Your task to perform on an android device: star an email in the gmail app Image 0: 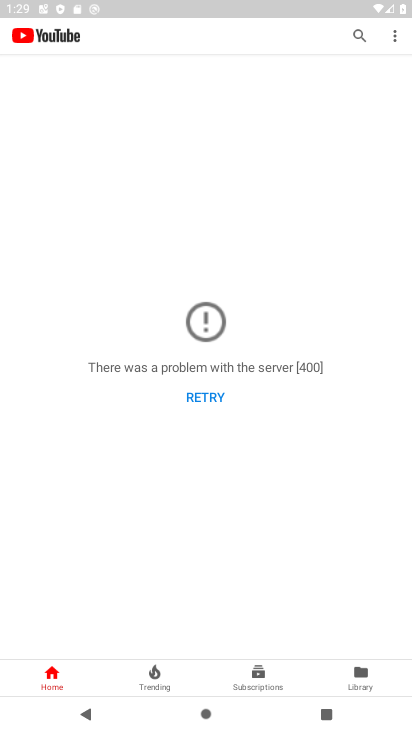
Step 0: press home button
Your task to perform on an android device: star an email in the gmail app Image 1: 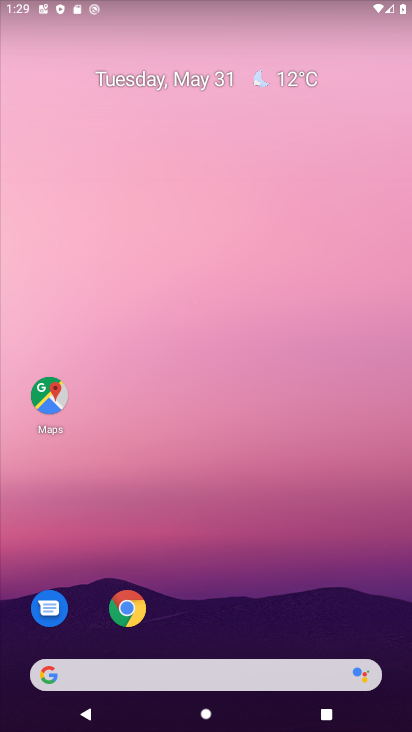
Step 1: drag from (320, 237) to (301, 107)
Your task to perform on an android device: star an email in the gmail app Image 2: 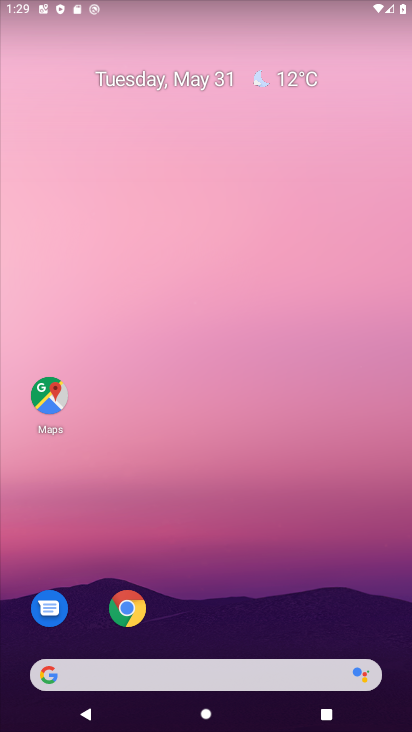
Step 2: drag from (371, 610) to (247, 148)
Your task to perform on an android device: star an email in the gmail app Image 3: 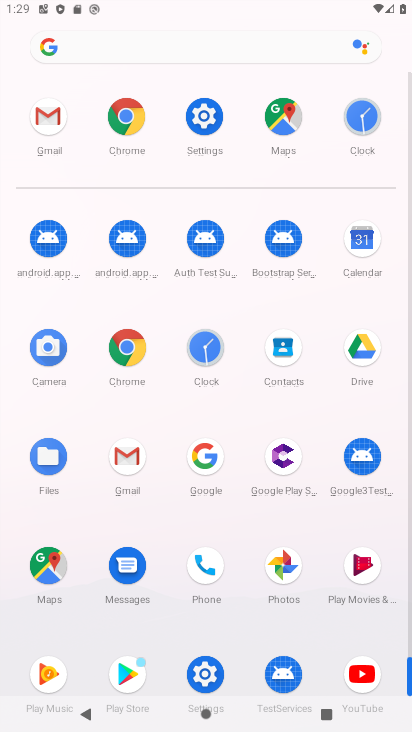
Step 3: click (141, 459)
Your task to perform on an android device: star an email in the gmail app Image 4: 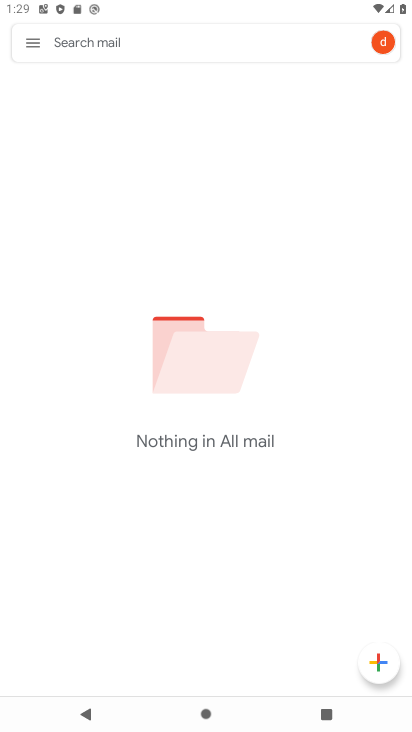
Step 4: click (36, 33)
Your task to perform on an android device: star an email in the gmail app Image 5: 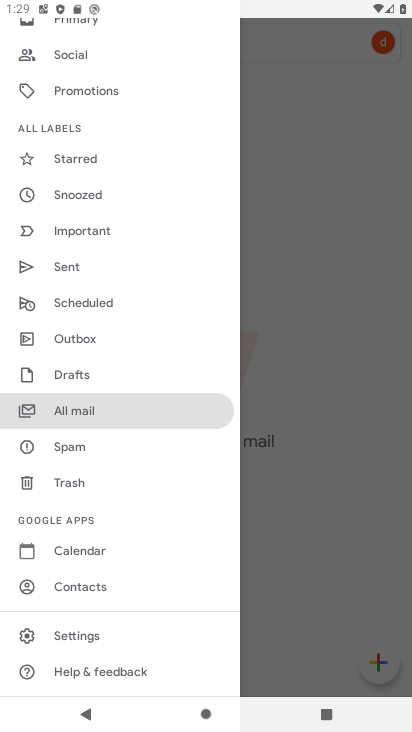
Step 5: task complete